Your task to perform on an android device: Search for "dell xps" on ebay, select the first entry, add it to the cart, then select checkout. Image 0: 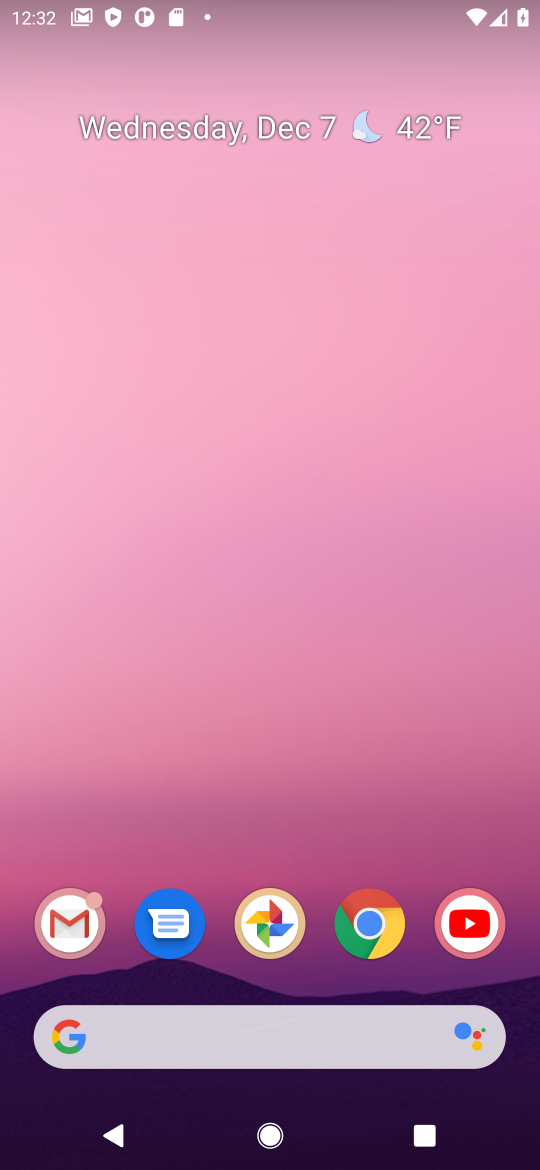
Step 0: click (367, 920)
Your task to perform on an android device: Search for "dell xps" on ebay, select the first entry, add it to the cart, then select checkout. Image 1: 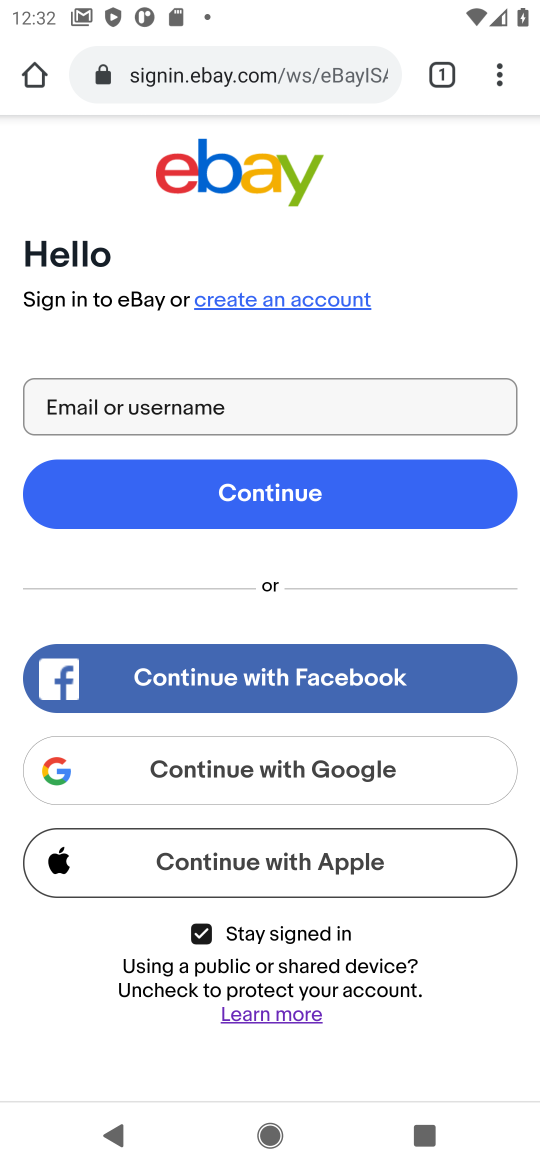
Step 1: click (273, 171)
Your task to perform on an android device: Search for "dell xps" on ebay, select the first entry, add it to the cart, then select checkout. Image 2: 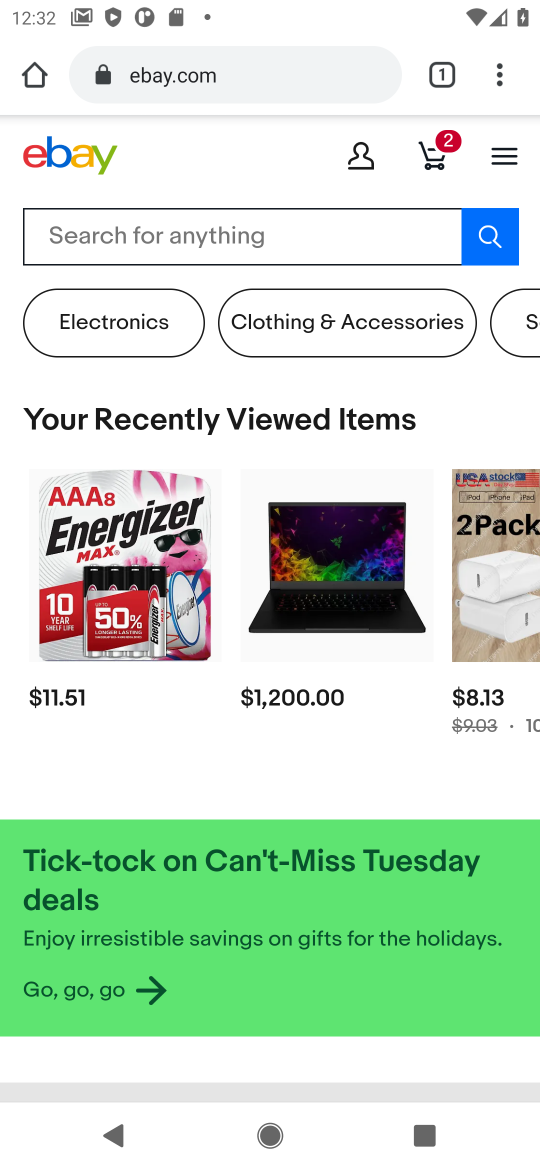
Step 2: click (273, 235)
Your task to perform on an android device: Search for "dell xps" on ebay, select the first entry, add it to the cart, then select checkout. Image 3: 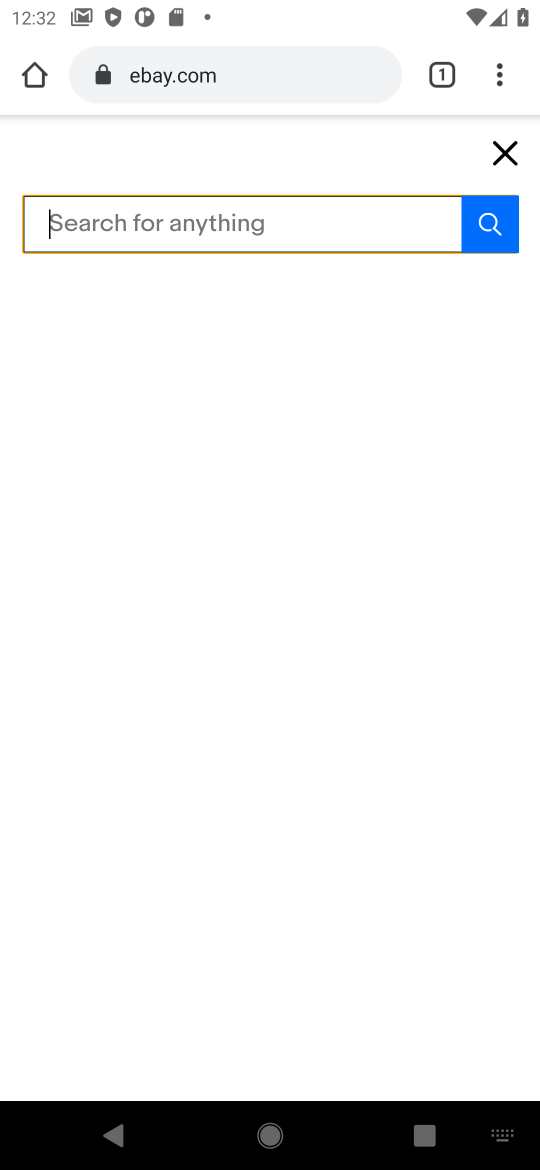
Step 3: type "dell xps"
Your task to perform on an android device: Search for "dell xps" on ebay, select the first entry, add it to the cart, then select checkout. Image 4: 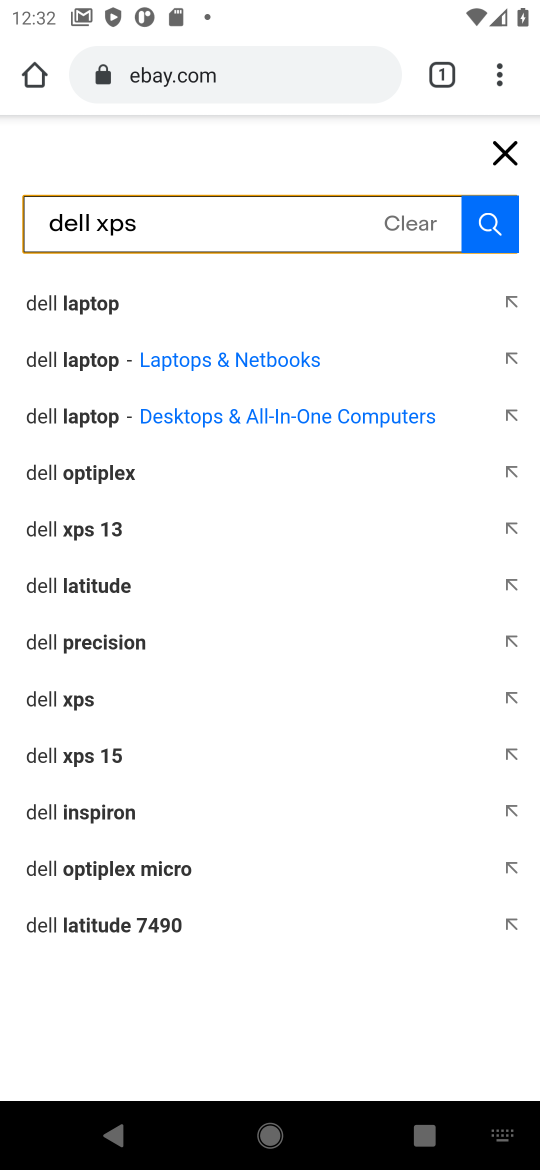
Step 4: click (108, 296)
Your task to perform on an android device: Search for "dell xps" on ebay, select the first entry, add it to the cart, then select checkout. Image 5: 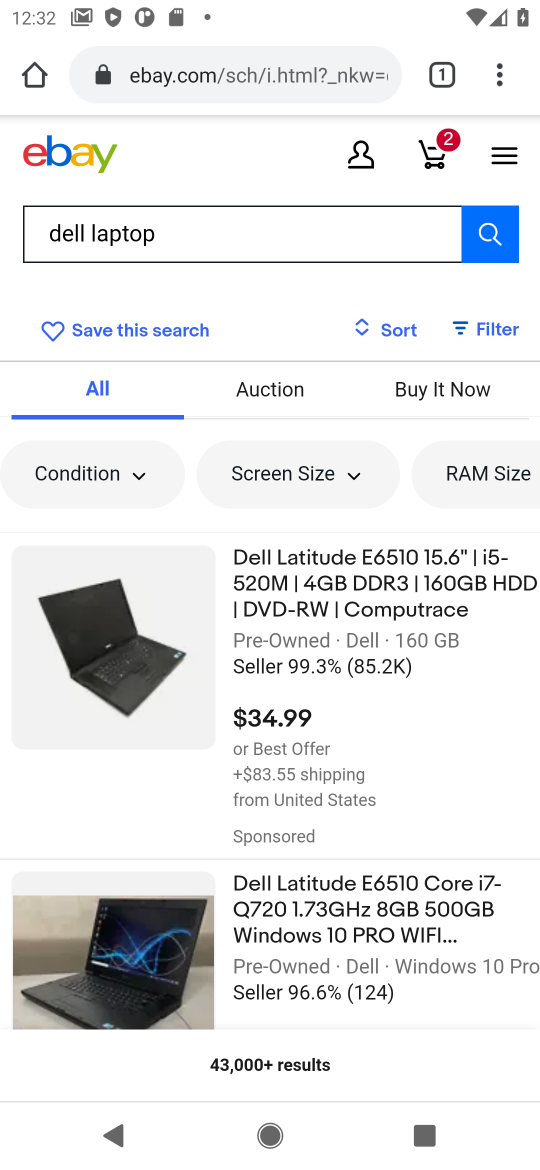
Step 5: click (101, 635)
Your task to perform on an android device: Search for "dell xps" on ebay, select the first entry, add it to the cart, then select checkout. Image 6: 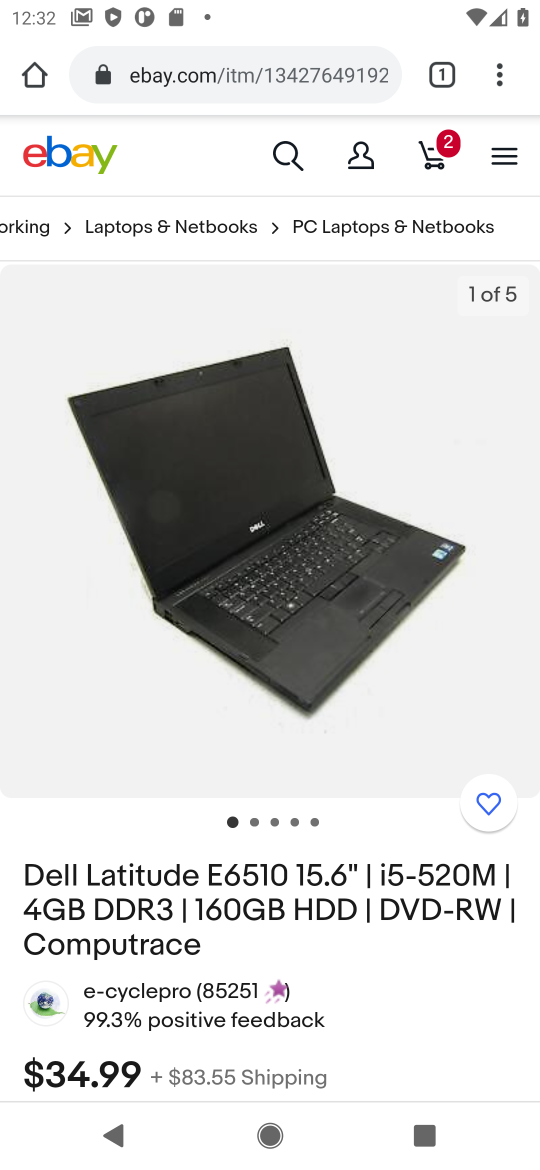
Step 6: drag from (408, 952) to (382, 372)
Your task to perform on an android device: Search for "dell xps" on ebay, select the first entry, add it to the cart, then select checkout. Image 7: 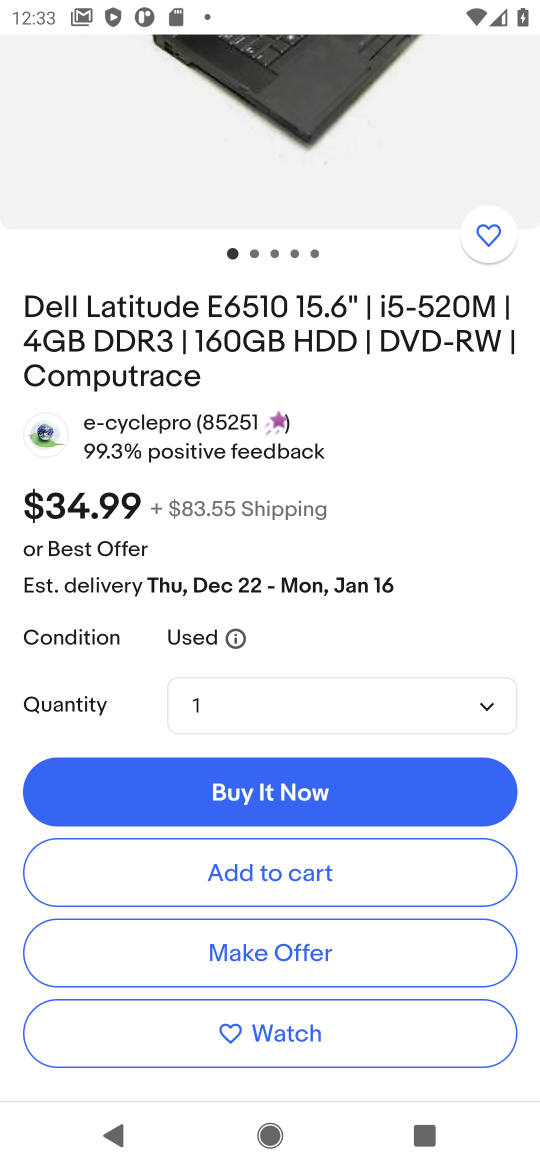
Step 7: click (290, 872)
Your task to perform on an android device: Search for "dell xps" on ebay, select the first entry, add it to the cart, then select checkout. Image 8: 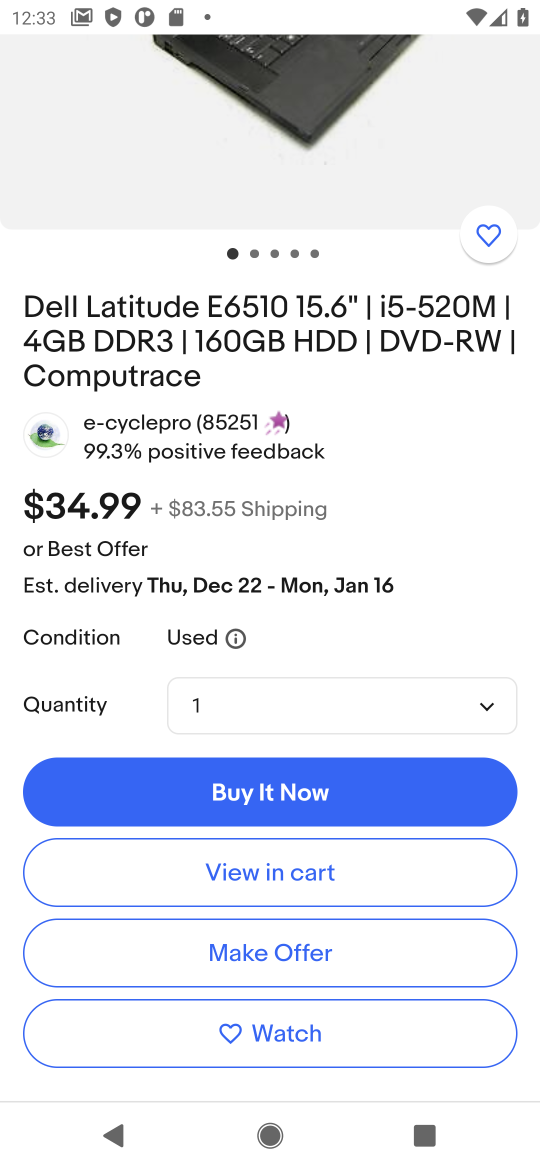
Step 8: click (290, 872)
Your task to perform on an android device: Search for "dell xps" on ebay, select the first entry, add it to the cart, then select checkout. Image 9: 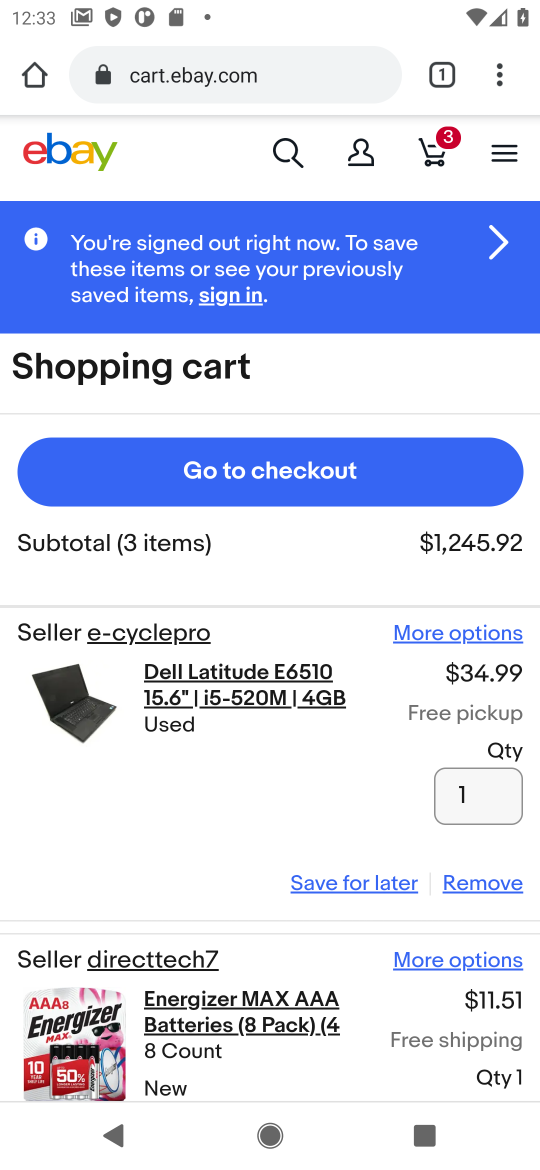
Step 9: click (270, 474)
Your task to perform on an android device: Search for "dell xps" on ebay, select the first entry, add it to the cart, then select checkout. Image 10: 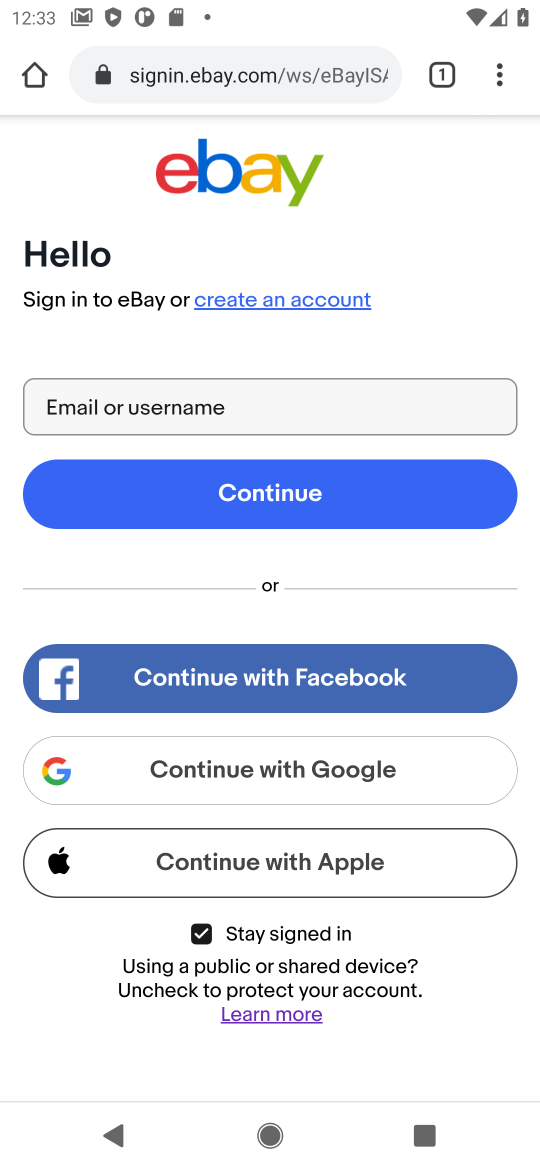
Step 10: task complete